Your task to perform on an android device: delete the emails in spam in the gmail app Image 0: 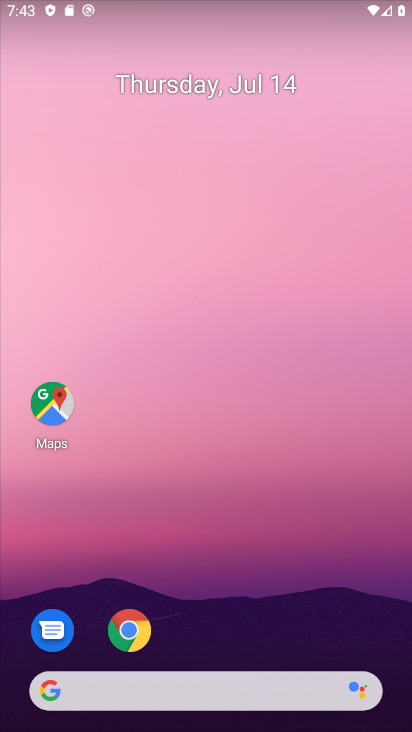
Step 0: drag from (251, 665) to (253, 139)
Your task to perform on an android device: delete the emails in spam in the gmail app Image 1: 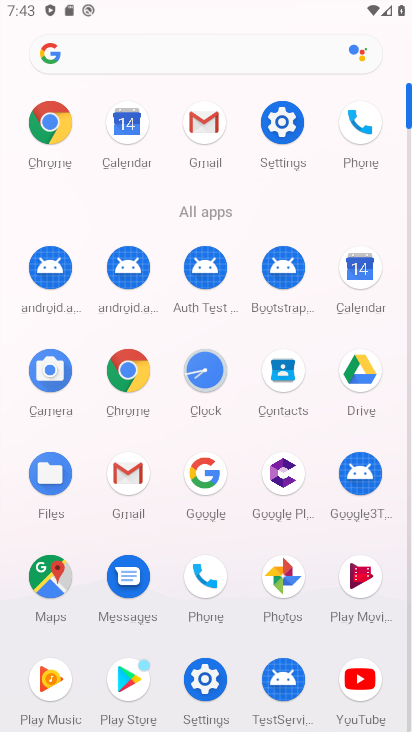
Step 1: click (213, 115)
Your task to perform on an android device: delete the emails in spam in the gmail app Image 2: 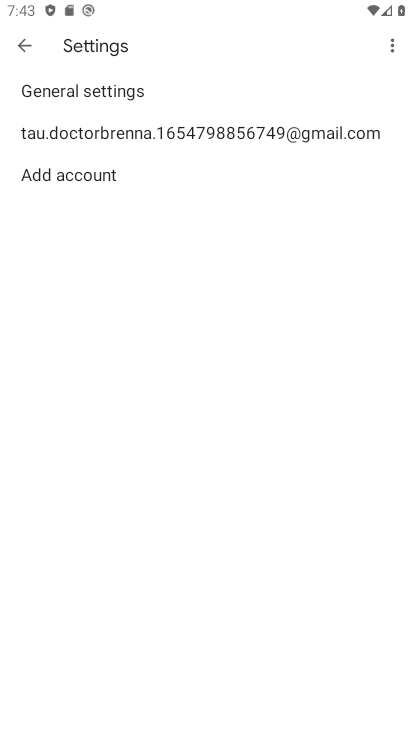
Step 2: click (20, 51)
Your task to perform on an android device: delete the emails in spam in the gmail app Image 3: 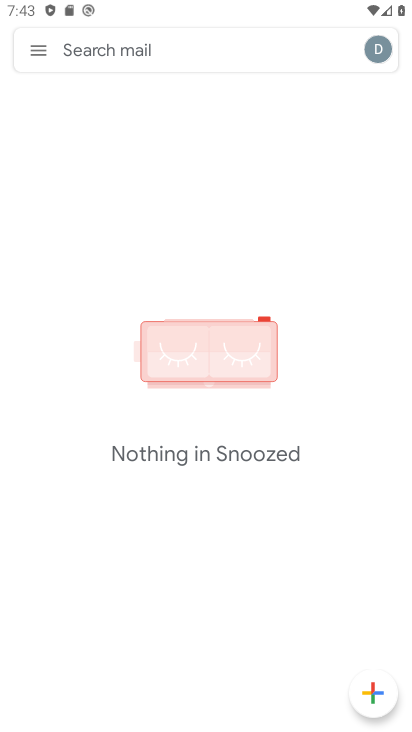
Step 3: click (34, 40)
Your task to perform on an android device: delete the emails in spam in the gmail app Image 4: 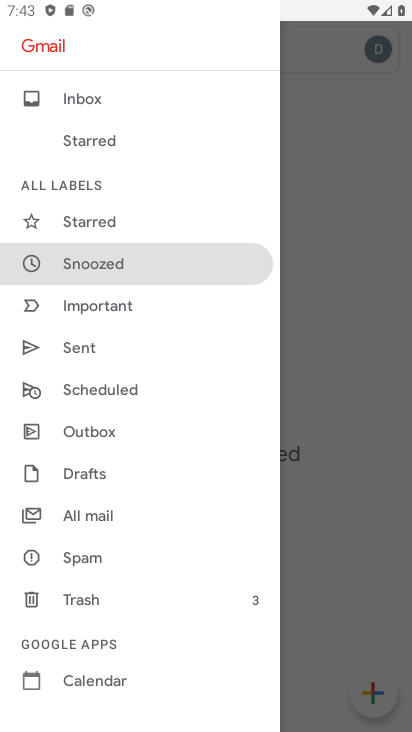
Step 4: click (88, 507)
Your task to perform on an android device: delete the emails in spam in the gmail app Image 5: 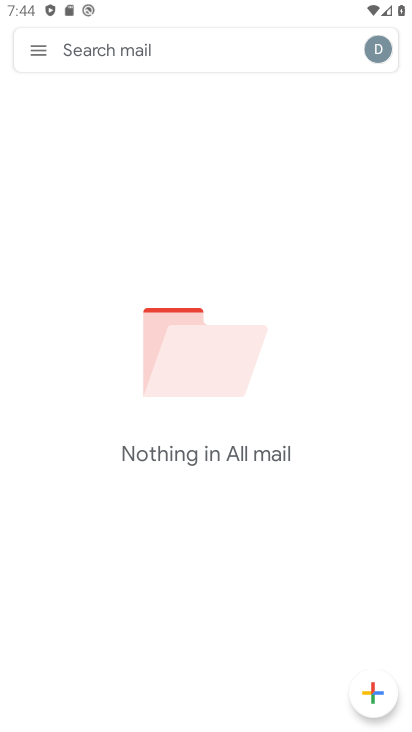
Step 5: task complete